Your task to perform on an android device: Open accessibility settings Image 0: 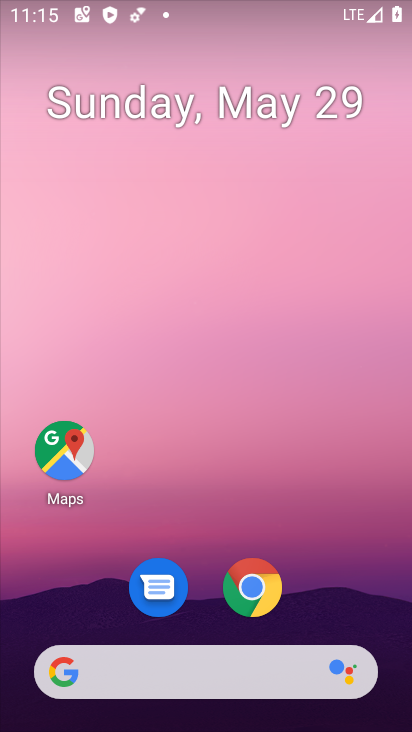
Step 0: drag from (327, 554) to (316, 44)
Your task to perform on an android device: Open accessibility settings Image 1: 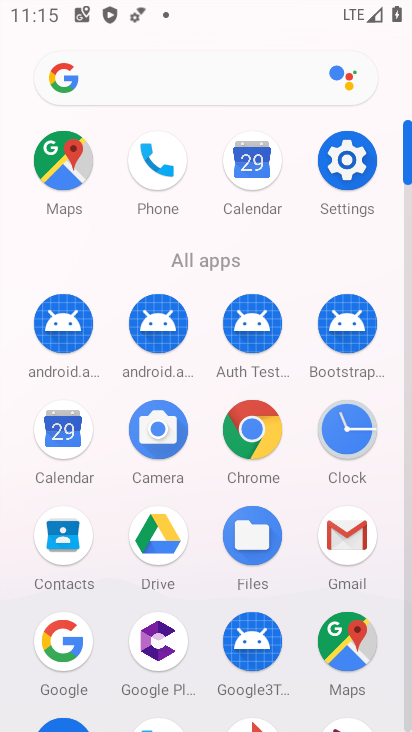
Step 1: click (338, 143)
Your task to perform on an android device: Open accessibility settings Image 2: 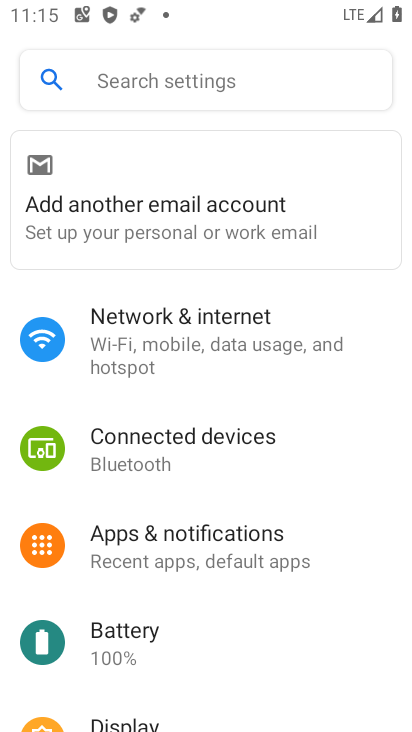
Step 2: drag from (217, 628) to (300, 99)
Your task to perform on an android device: Open accessibility settings Image 3: 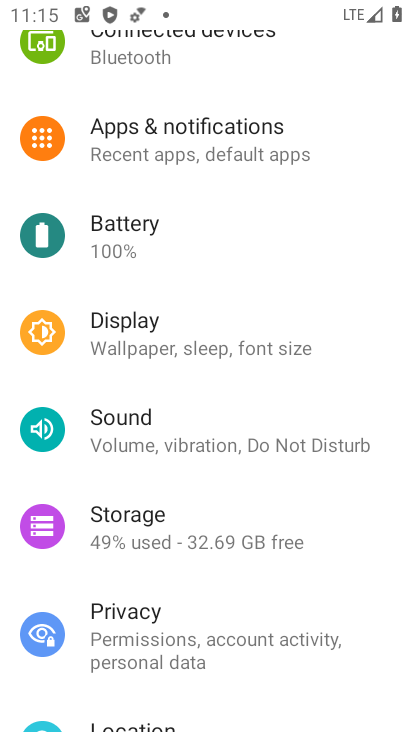
Step 3: drag from (214, 625) to (282, 189)
Your task to perform on an android device: Open accessibility settings Image 4: 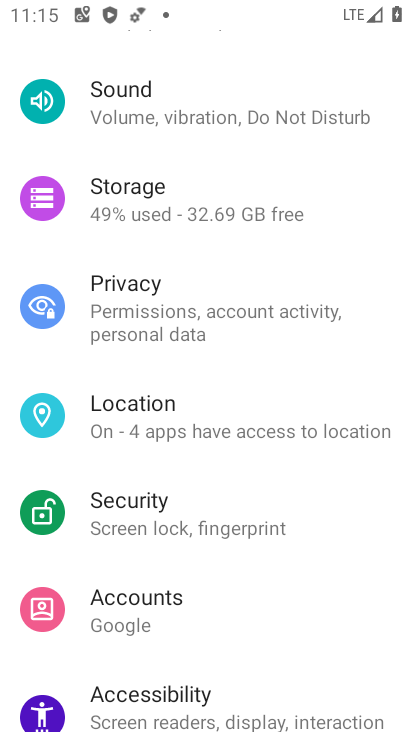
Step 4: drag from (182, 555) to (276, 178)
Your task to perform on an android device: Open accessibility settings Image 5: 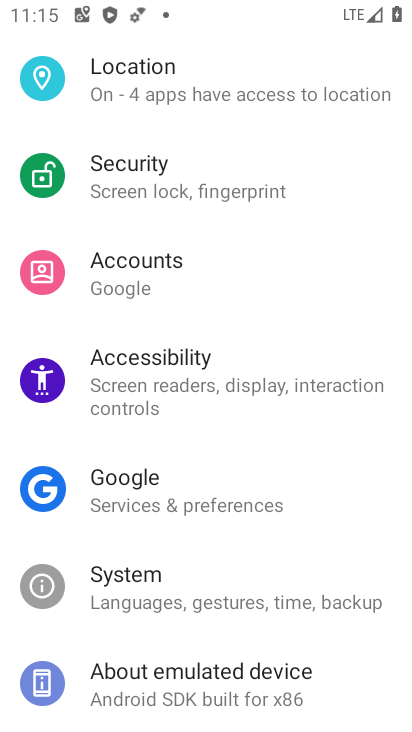
Step 5: click (221, 385)
Your task to perform on an android device: Open accessibility settings Image 6: 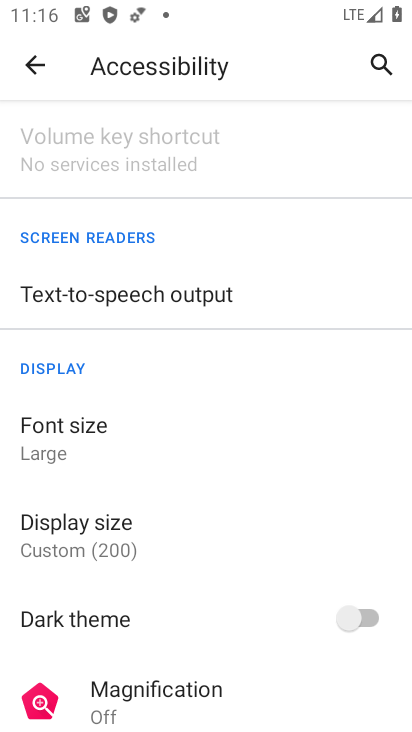
Step 6: task complete